Your task to perform on an android device: see tabs open on other devices in the chrome app Image 0: 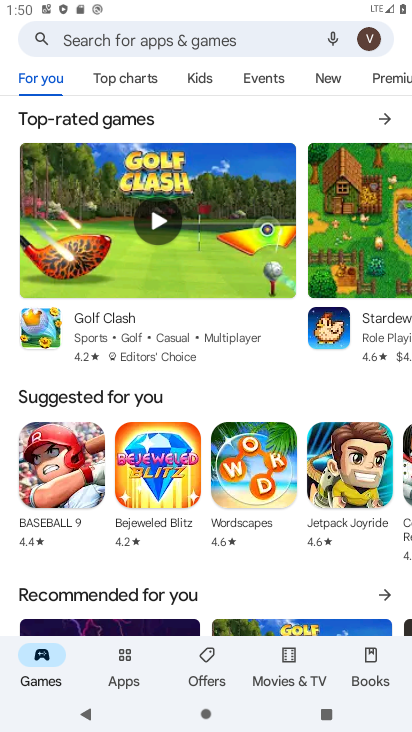
Step 0: press home button
Your task to perform on an android device: see tabs open on other devices in the chrome app Image 1: 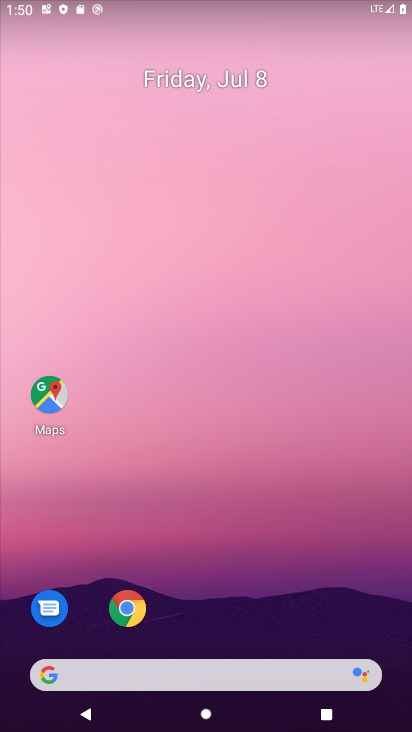
Step 1: click (128, 611)
Your task to perform on an android device: see tabs open on other devices in the chrome app Image 2: 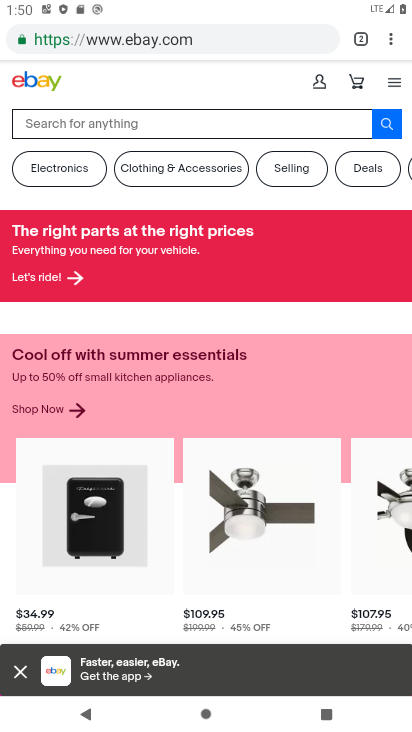
Step 2: click (389, 45)
Your task to perform on an android device: see tabs open on other devices in the chrome app Image 3: 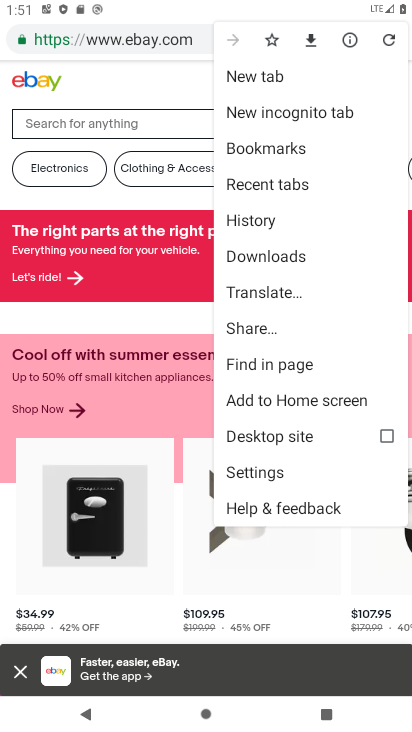
Step 3: click (261, 185)
Your task to perform on an android device: see tabs open on other devices in the chrome app Image 4: 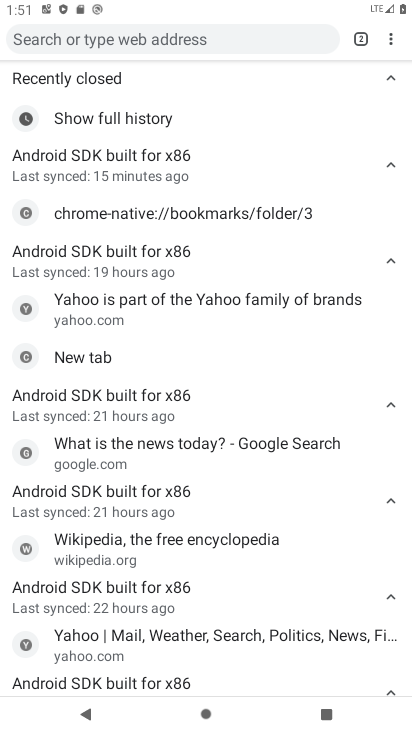
Step 4: task complete